Your task to perform on an android device: Go to wifi settings Image 0: 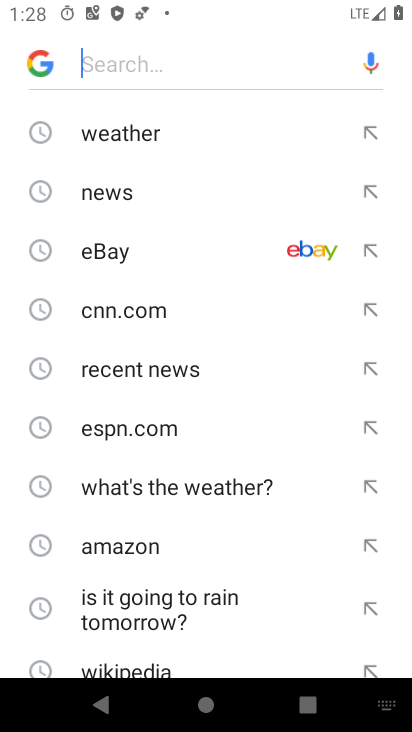
Step 0: drag from (177, 16) to (139, 589)
Your task to perform on an android device: Go to wifi settings Image 1: 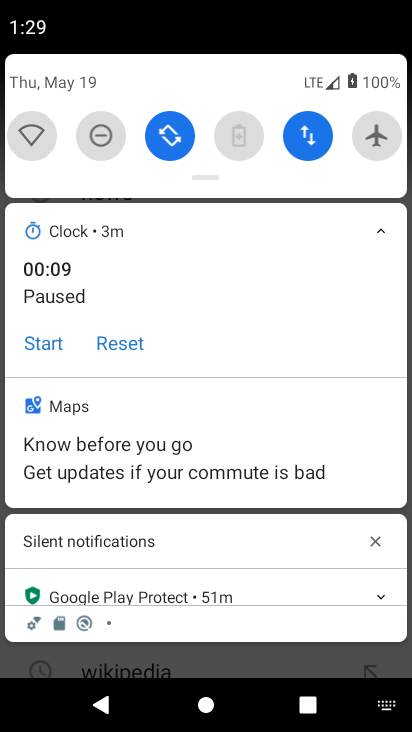
Step 1: click (45, 143)
Your task to perform on an android device: Go to wifi settings Image 2: 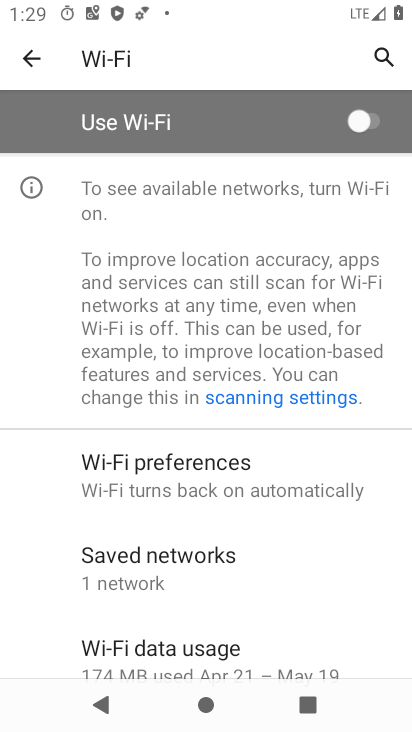
Step 2: task complete